Your task to perform on an android device: find photos in the google photos app Image 0: 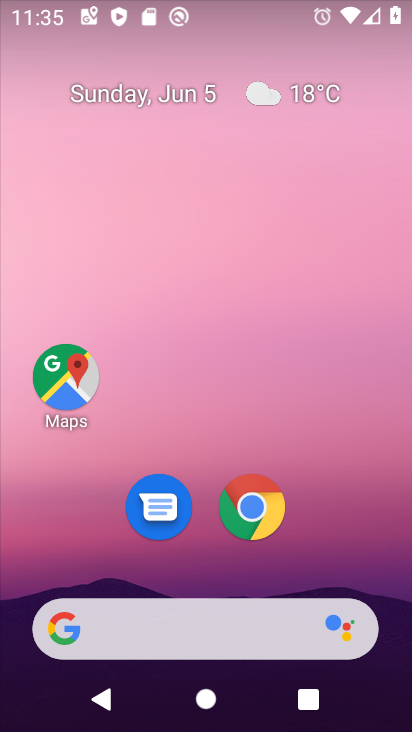
Step 0: drag from (223, 707) to (198, 105)
Your task to perform on an android device: find photos in the google photos app Image 1: 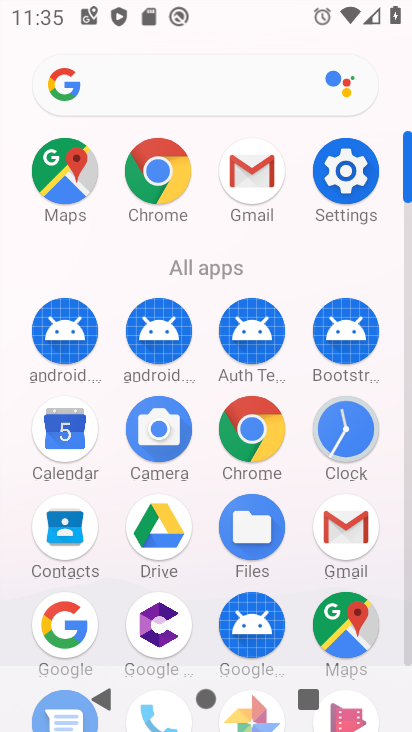
Step 1: drag from (300, 622) to (274, 288)
Your task to perform on an android device: find photos in the google photos app Image 2: 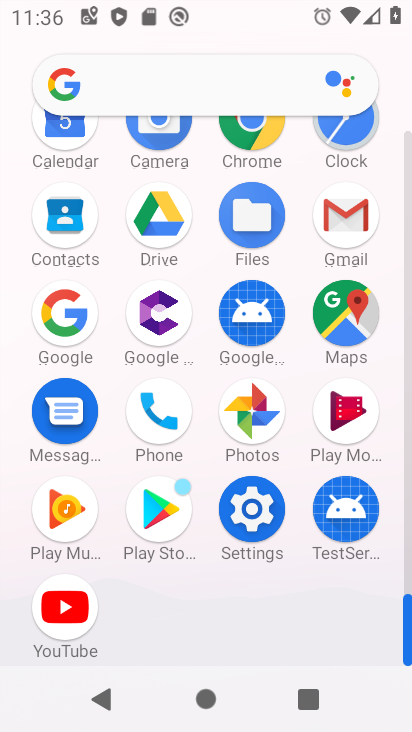
Step 2: click (250, 414)
Your task to perform on an android device: find photos in the google photos app Image 3: 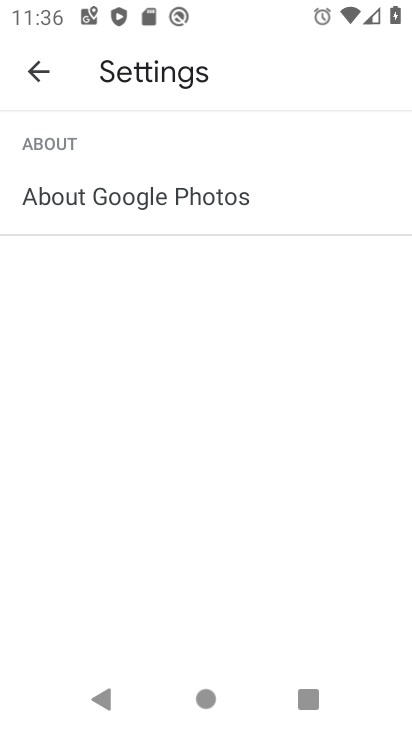
Step 3: click (34, 71)
Your task to perform on an android device: find photos in the google photos app Image 4: 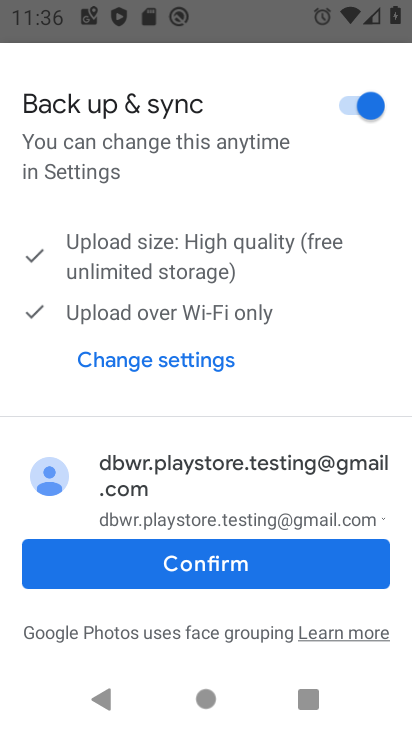
Step 4: click (198, 555)
Your task to perform on an android device: find photos in the google photos app Image 5: 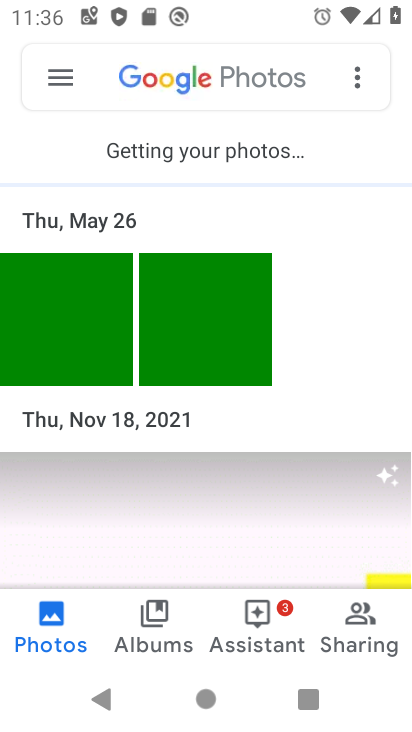
Step 5: click (56, 342)
Your task to perform on an android device: find photos in the google photos app Image 6: 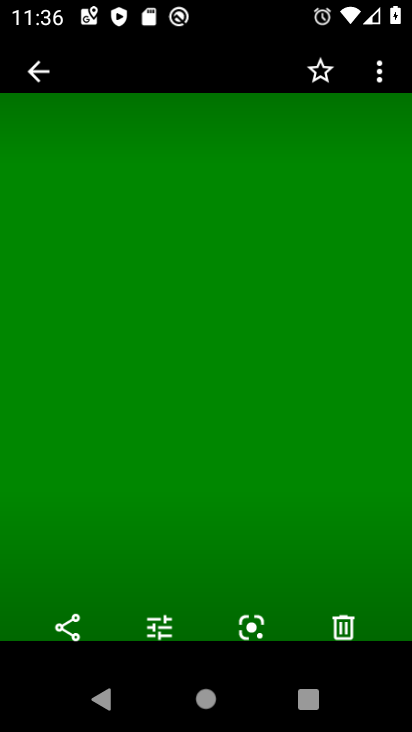
Step 6: task complete